Your task to perform on an android device: turn off wifi Image 0: 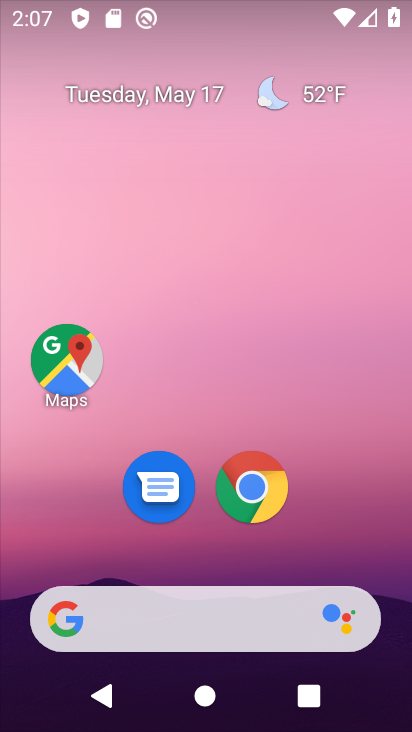
Step 0: click (376, 261)
Your task to perform on an android device: turn off wifi Image 1: 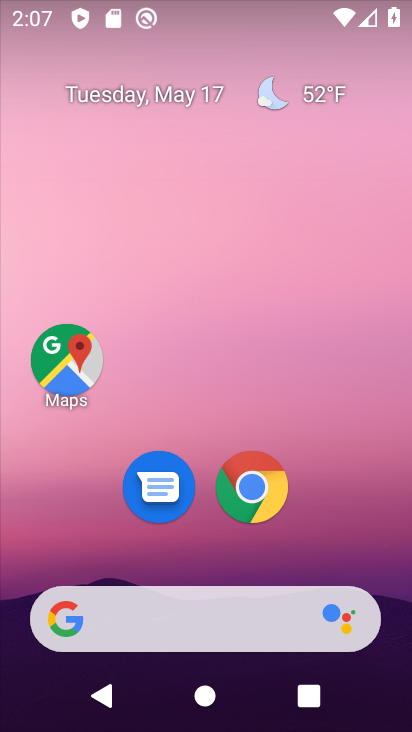
Step 1: drag from (403, 624) to (405, 249)
Your task to perform on an android device: turn off wifi Image 2: 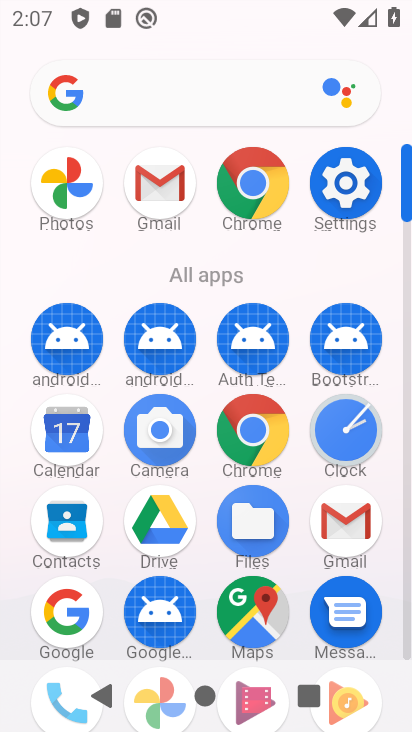
Step 2: click (360, 192)
Your task to perform on an android device: turn off wifi Image 3: 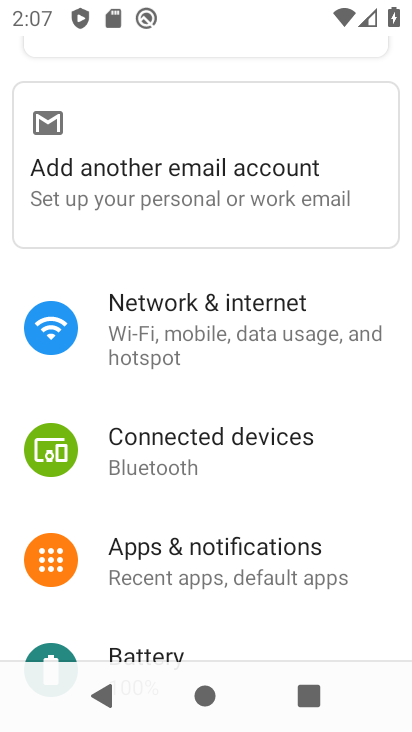
Step 3: click (195, 322)
Your task to perform on an android device: turn off wifi Image 4: 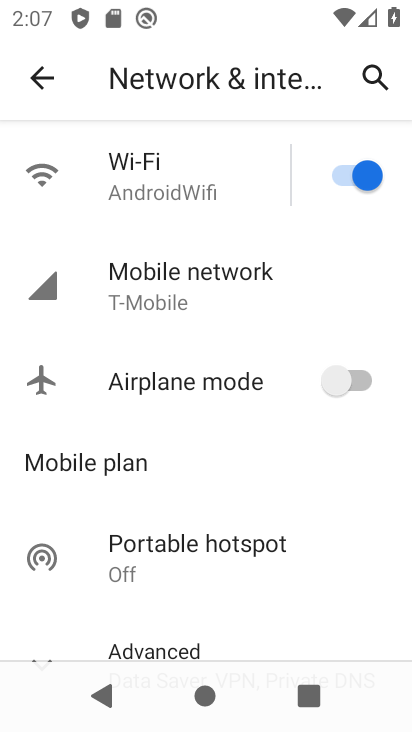
Step 4: click (335, 178)
Your task to perform on an android device: turn off wifi Image 5: 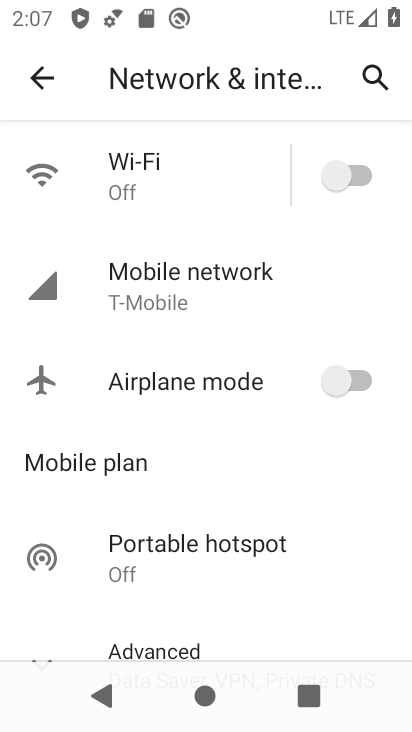
Step 5: task complete